Your task to perform on an android device: turn off notifications settings in the gmail app Image 0: 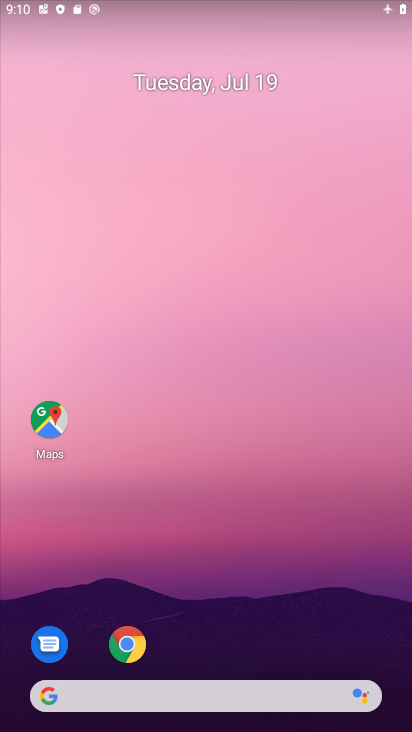
Step 0: drag from (189, 665) to (128, 130)
Your task to perform on an android device: turn off notifications settings in the gmail app Image 1: 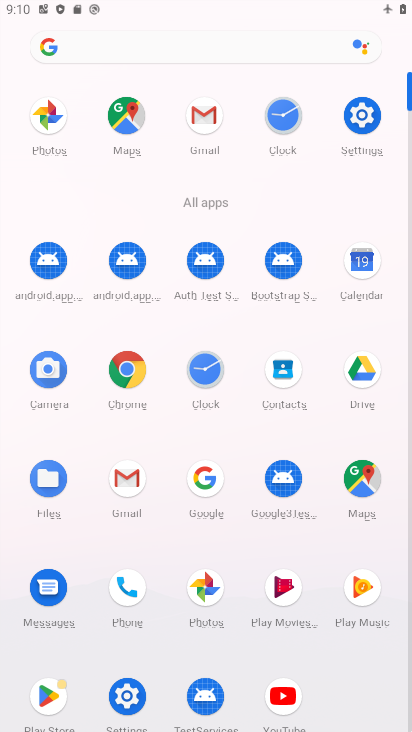
Step 1: click (138, 487)
Your task to perform on an android device: turn off notifications settings in the gmail app Image 2: 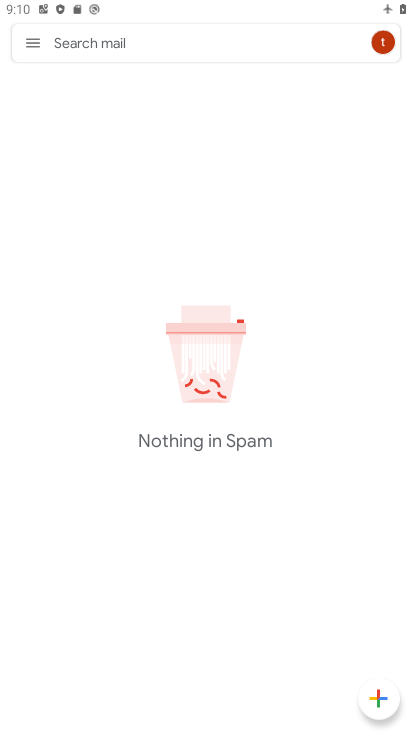
Step 2: click (37, 45)
Your task to perform on an android device: turn off notifications settings in the gmail app Image 3: 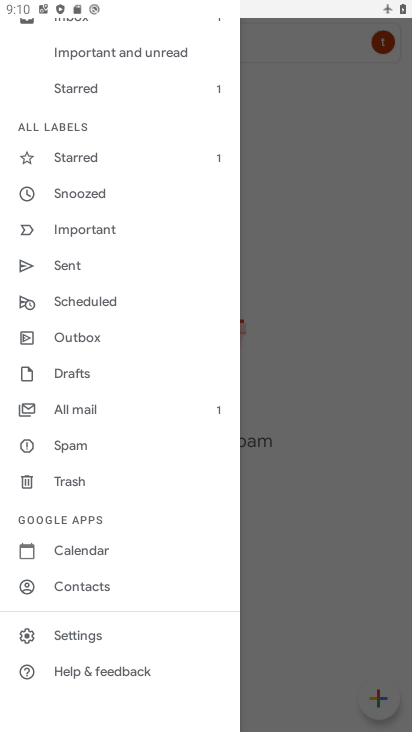
Step 3: click (54, 623)
Your task to perform on an android device: turn off notifications settings in the gmail app Image 4: 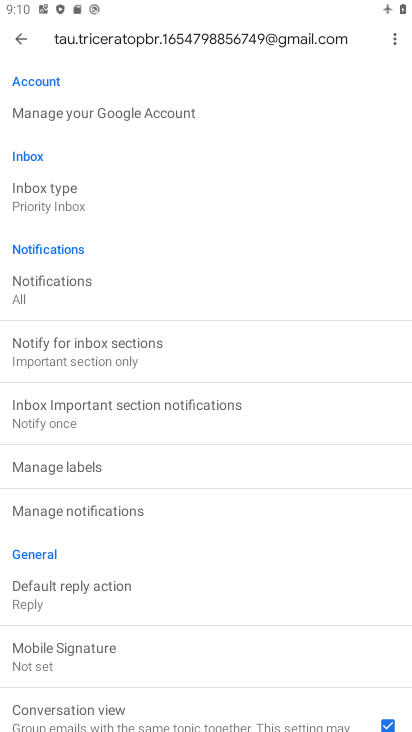
Step 4: click (41, 291)
Your task to perform on an android device: turn off notifications settings in the gmail app Image 5: 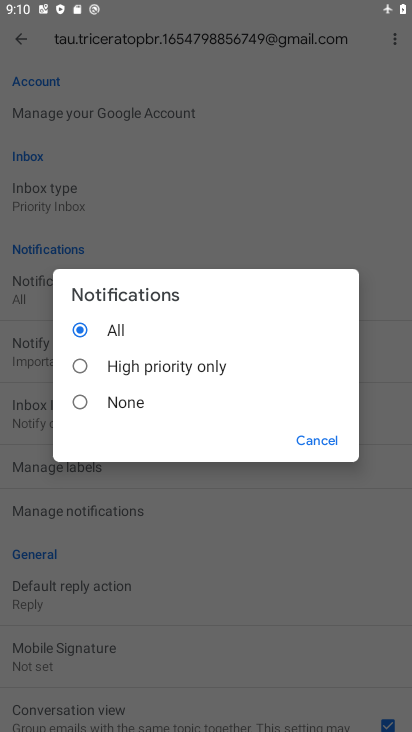
Step 5: click (194, 148)
Your task to perform on an android device: turn off notifications settings in the gmail app Image 6: 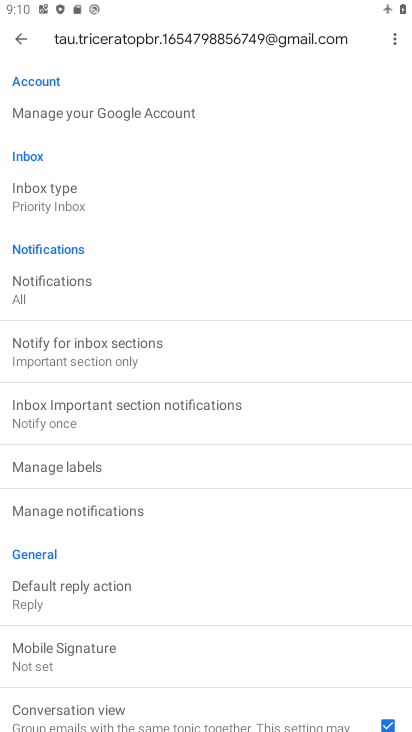
Step 6: click (22, 37)
Your task to perform on an android device: turn off notifications settings in the gmail app Image 7: 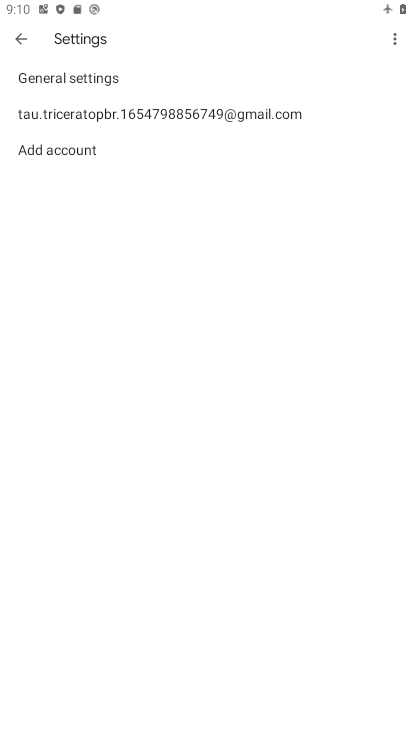
Step 7: click (35, 69)
Your task to perform on an android device: turn off notifications settings in the gmail app Image 8: 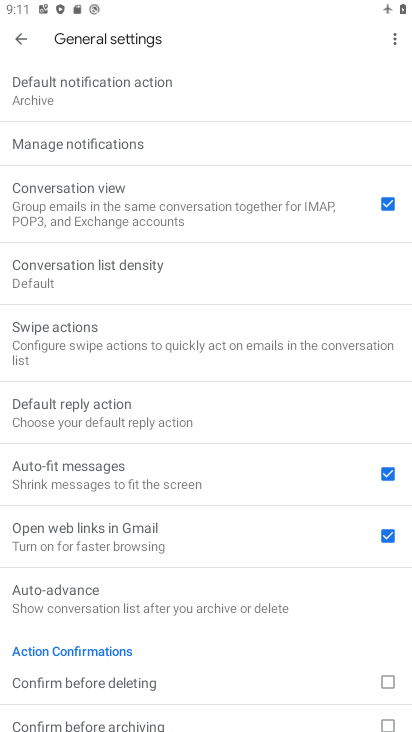
Step 8: click (101, 150)
Your task to perform on an android device: turn off notifications settings in the gmail app Image 9: 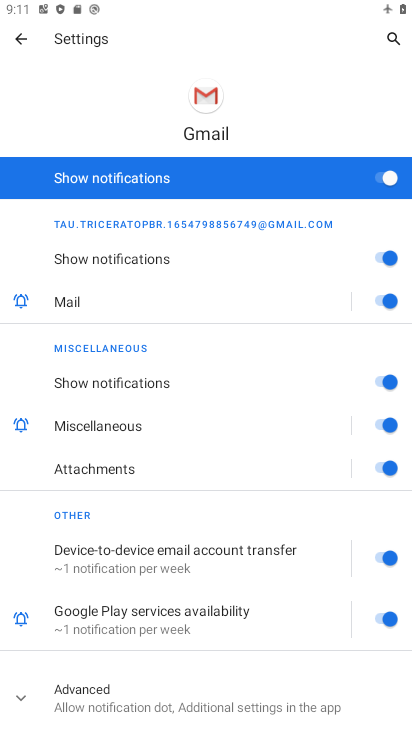
Step 9: click (385, 180)
Your task to perform on an android device: turn off notifications settings in the gmail app Image 10: 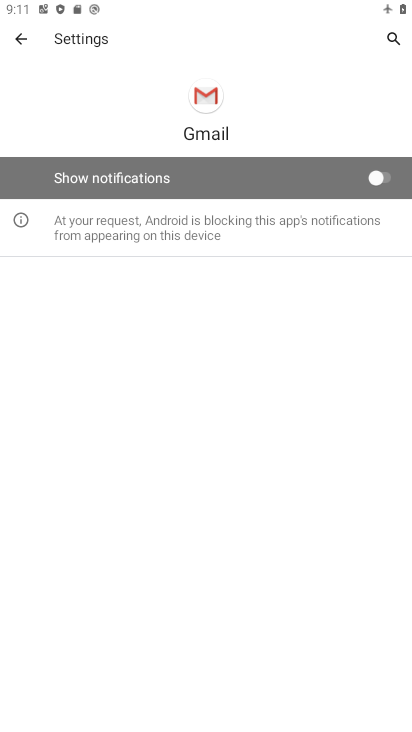
Step 10: task complete